Your task to perform on an android device: turn pop-ups off in chrome Image 0: 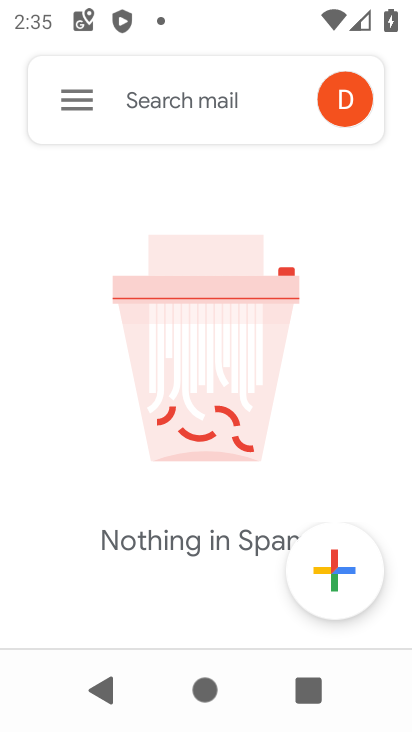
Step 0: press home button
Your task to perform on an android device: turn pop-ups off in chrome Image 1: 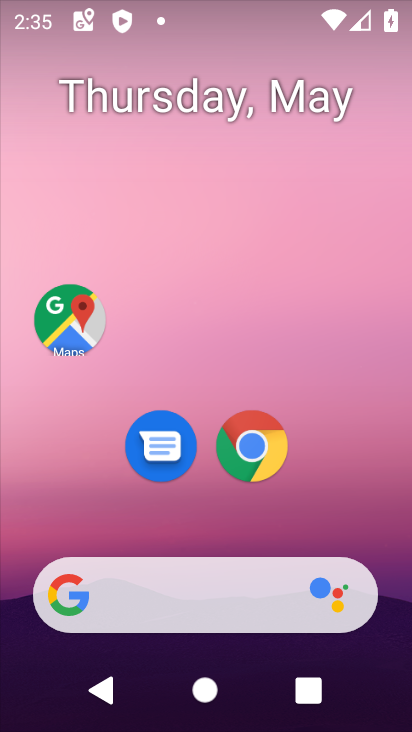
Step 1: click (258, 444)
Your task to perform on an android device: turn pop-ups off in chrome Image 2: 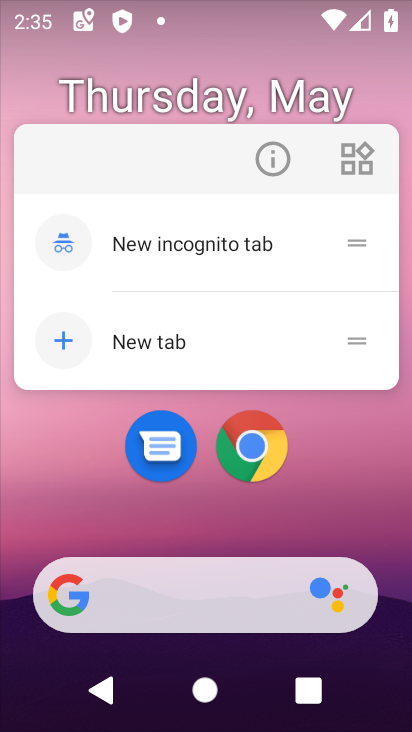
Step 2: click (256, 442)
Your task to perform on an android device: turn pop-ups off in chrome Image 3: 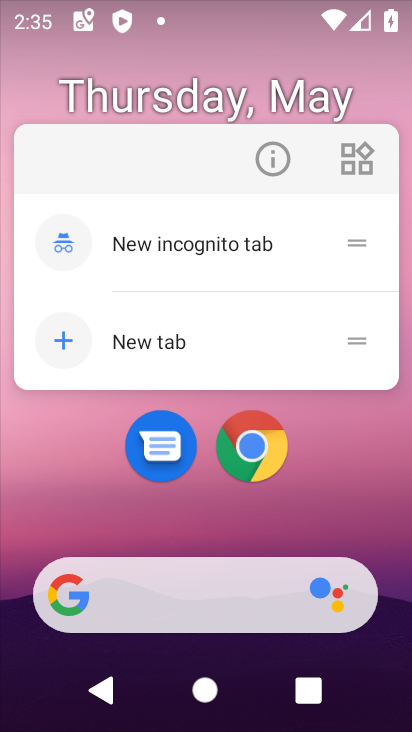
Step 3: click (257, 440)
Your task to perform on an android device: turn pop-ups off in chrome Image 4: 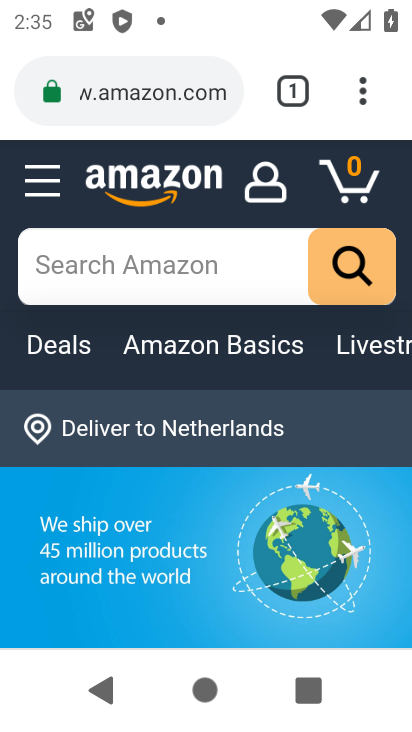
Step 4: click (356, 96)
Your task to perform on an android device: turn pop-ups off in chrome Image 5: 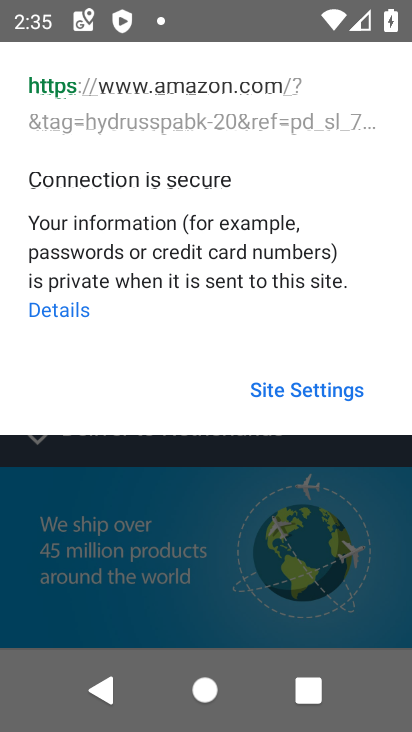
Step 5: click (368, 531)
Your task to perform on an android device: turn pop-ups off in chrome Image 6: 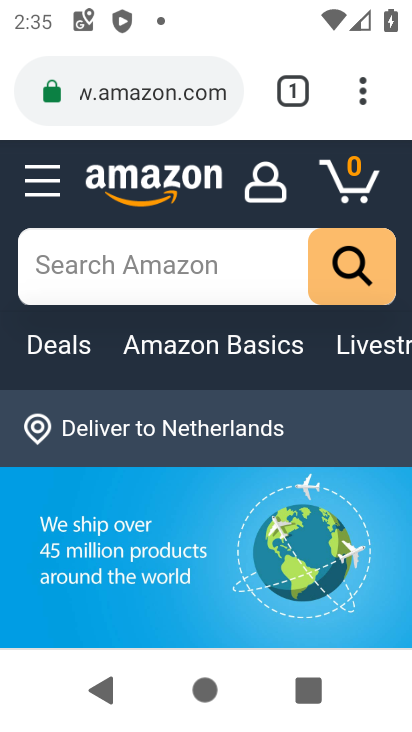
Step 6: click (369, 101)
Your task to perform on an android device: turn pop-ups off in chrome Image 7: 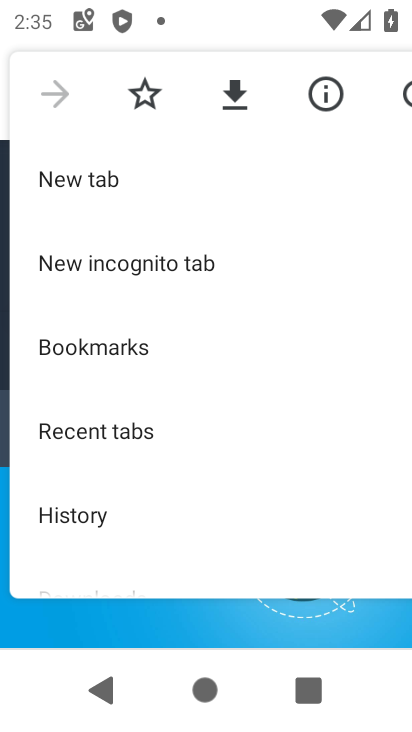
Step 7: drag from (227, 552) to (179, 239)
Your task to perform on an android device: turn pop-ups off in chrome Image 8: 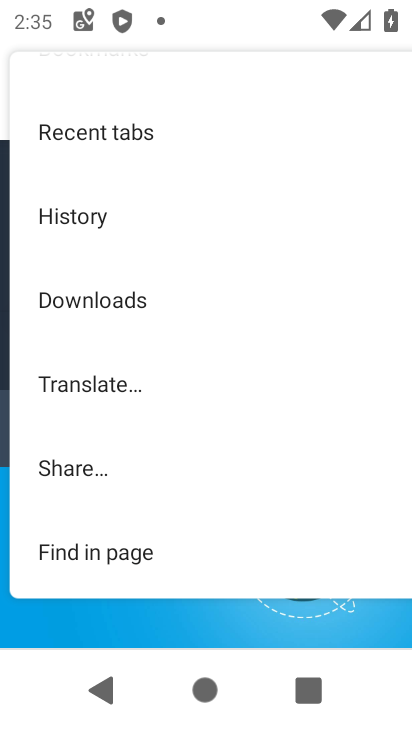
Step 8: drag from (162, 514) to (165, 255)
Your task to perform on an android device: turn pop-ups off in chrome Image 9: 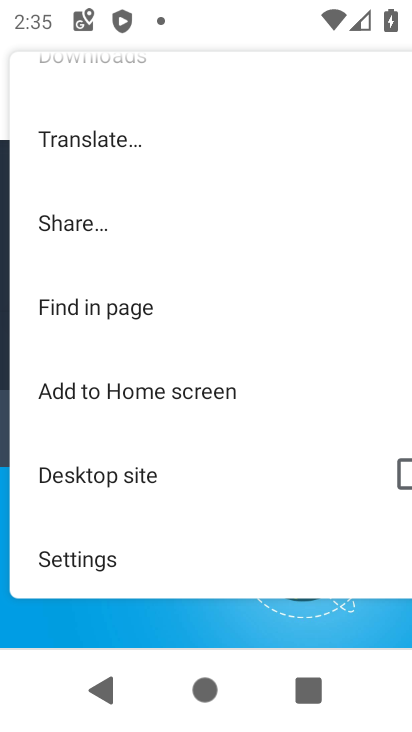
Step 9: click (105, 564)
Your task to perform on an android device: turn pop-ups off in chrome Image 10: 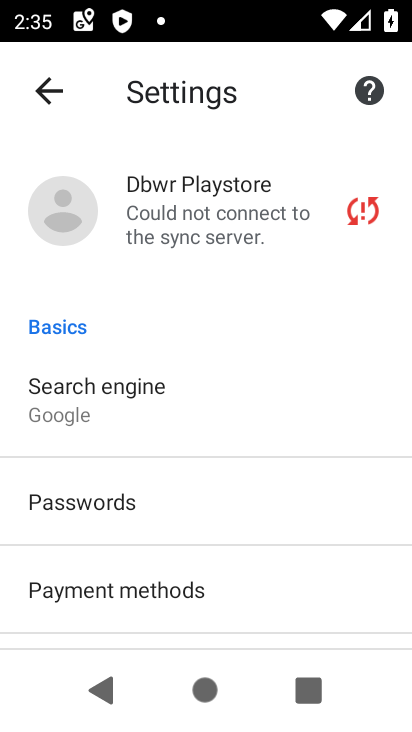
Step 10: drag from (135, 598) to (202, 249)
Your task to perform on an android device: turn pop-ups off in chrome Image 11: 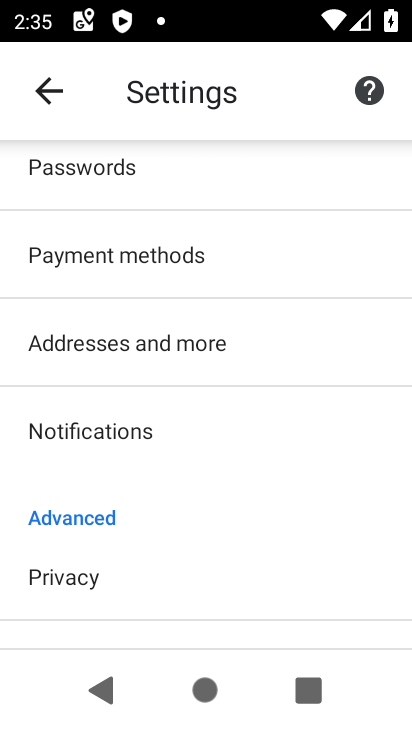
Step 11: drag from (207, 528) to (234, 279)
Your task to perform on an android device: turn pop-ups off in chrome Image 12: 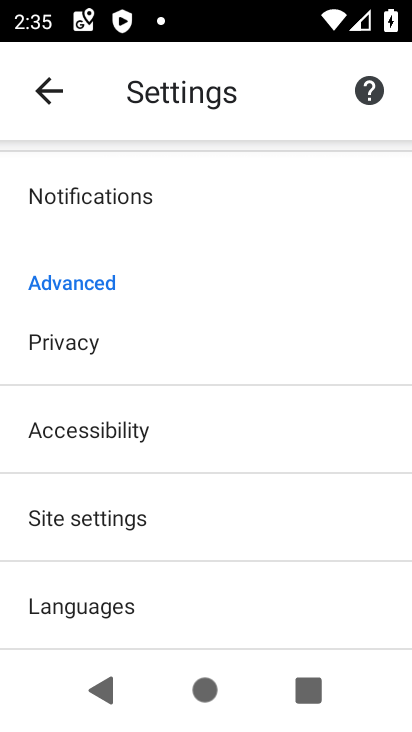
Step 12: click (99, 524)
Your task to perform on an android device: turn pop-ups off in chrome Image 13: 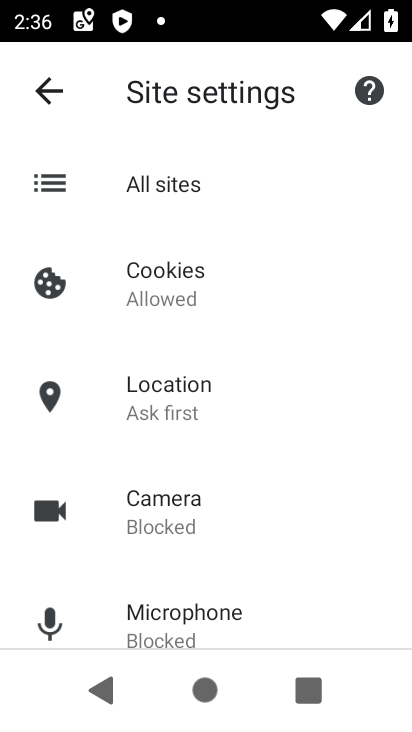
Step 13: drag from (227, 553) to (236, 375)
Your task to perform on an android device: turn pop-ups off in chrome Image 14: 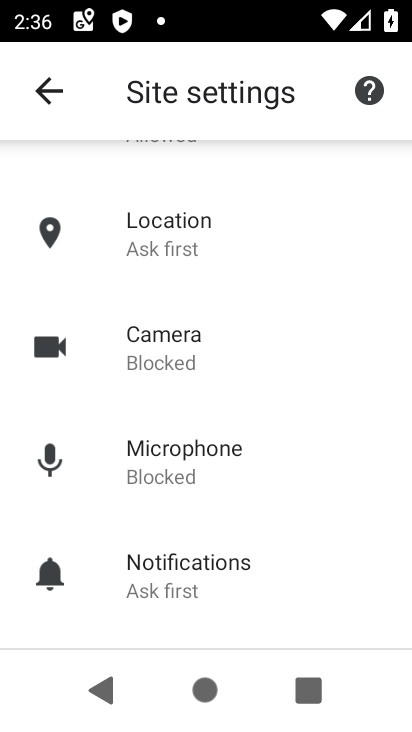
Step 14: drag from (237, 606) to (293, 409)
Your task to perform on an android device: turn pop-ups off in chrome Image 15: 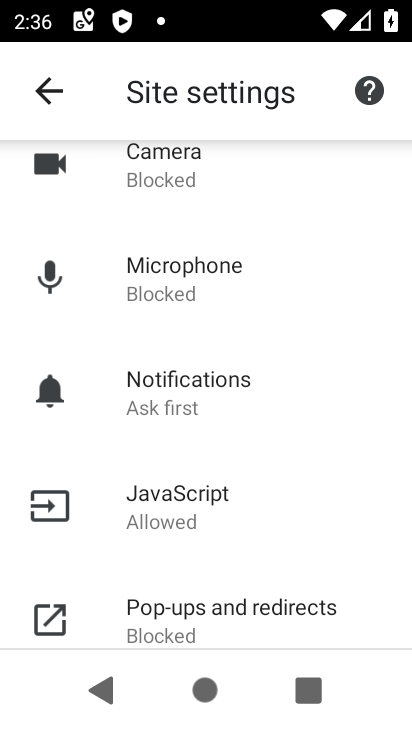
Step 15: click (252, 603)
Your task to perform on an android device: turn pop-ups off in chrome Image 16: 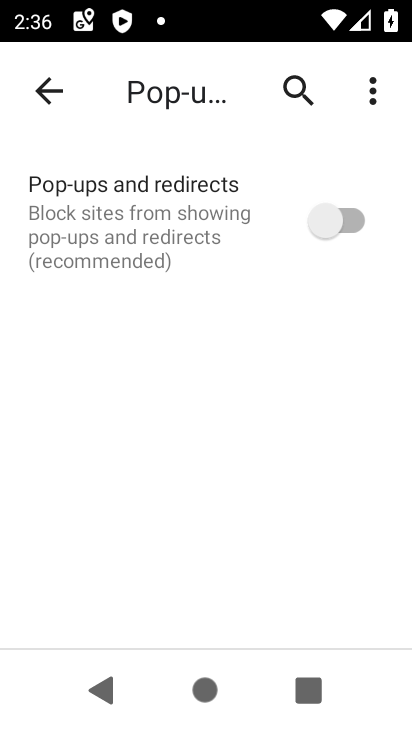
Step 16: task complete